Your task to perform on an android device: Toggle the flashlight Image 0: 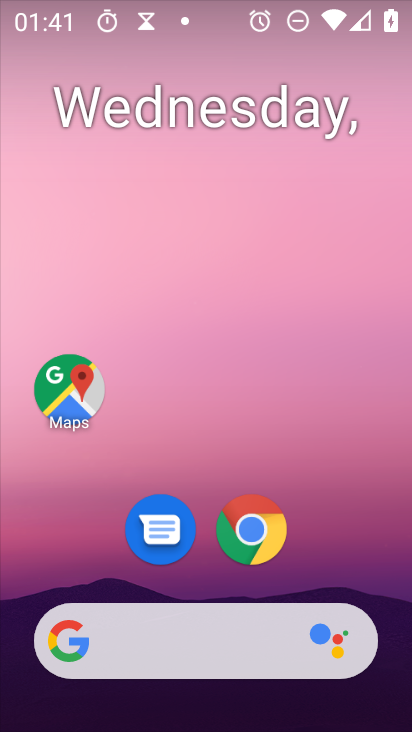
Step 0: drag from (300, 615) to (250, 6)
Your task to perform on an android device: Toggle the flashlight Image 1: 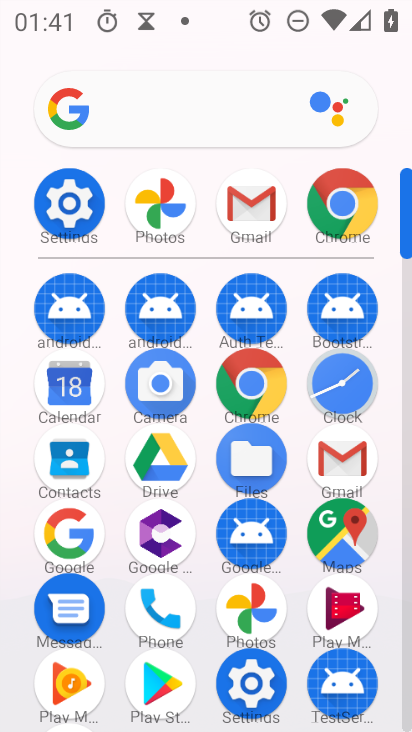
Step 1: click (83, 210)
Your task to perform on an android device: Toggle the flashlight Image 2: 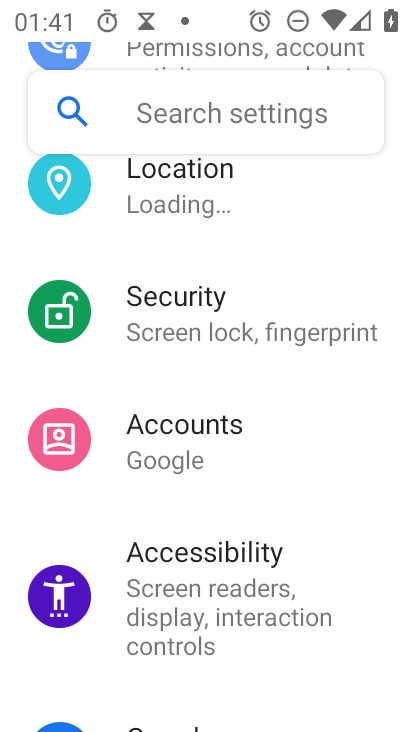
Step 2: task complete